Your task to perform on an android device: Go to eBay Image 0: 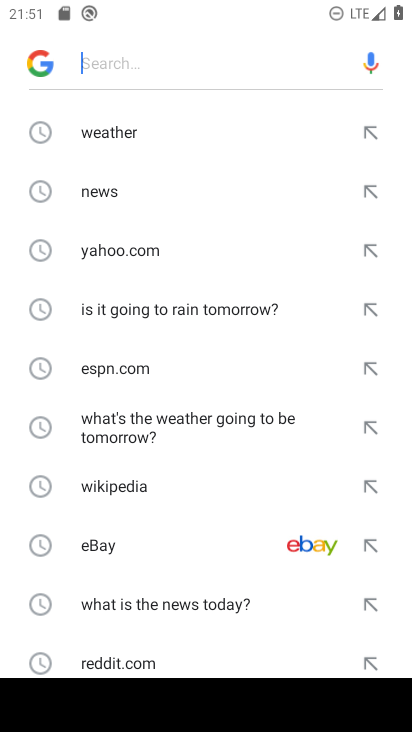
Step 0: click (129, 539)
Your task to perform on an android device: Go to eBay Image 1: 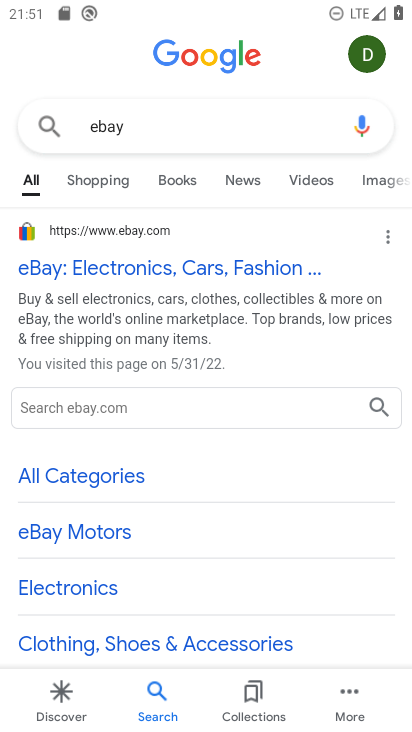
Step 1: click (192, 267)
Your task to perform on an android device: Go to eBay Image 2: 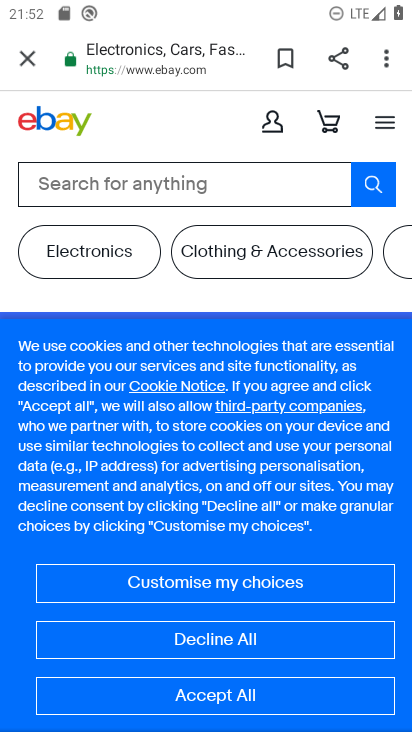
Step 2: task complete